Your task to perform on an android device: choose inbox layout in the gmail app Image 0: 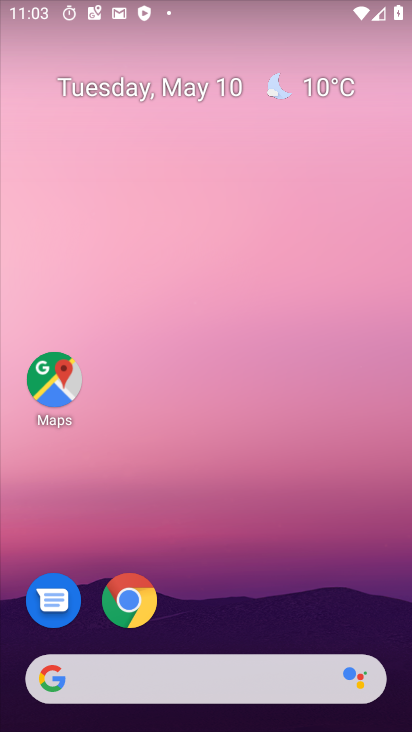
Step 0: drag from (230, 534) to (202, 14)
Your task to perform on an android device: choose inbox layout in the gmail app Image 1: 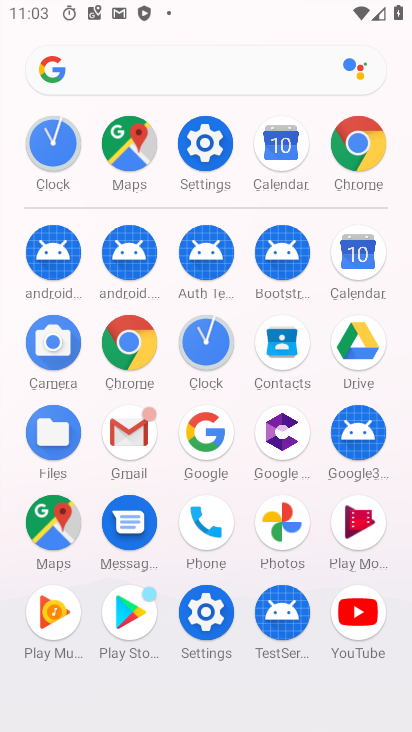
Step 1: drag from (5, 555) to (15, 189)
Your task to perform on an android device: choose inbox layout in the gmail app Image 2: 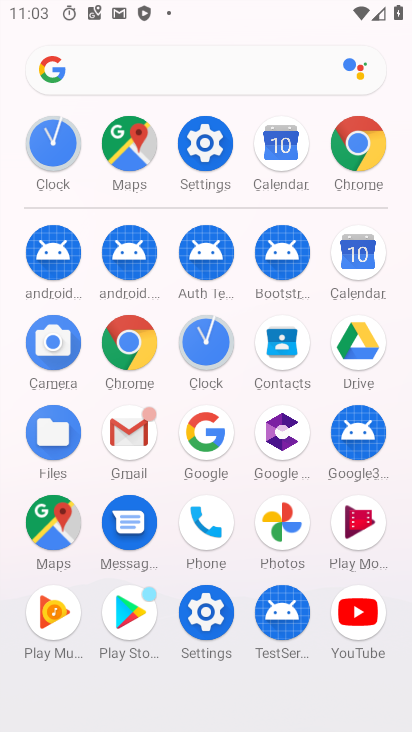
Step 2: click (129, 427)
Your task to perform on an android device: choose inbox layout in the gmail app Image 3: 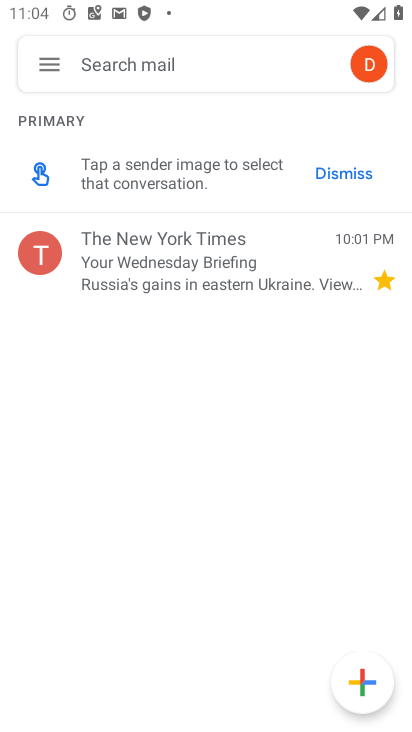
Step 3: click (50, 63)
Your task to perform on an android device: choose inbox layout in the gmail app Image 4: 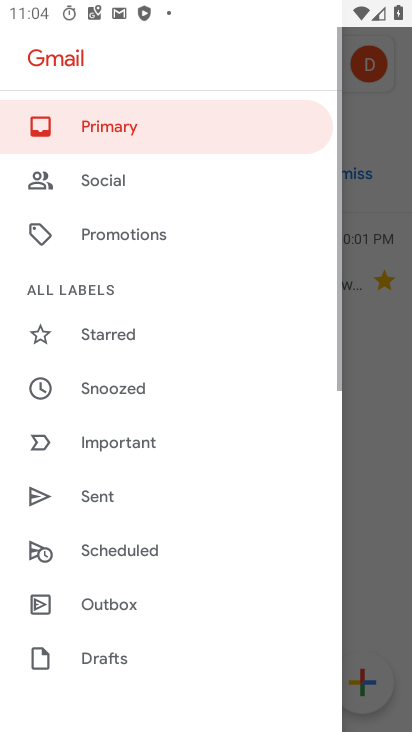
Step 4: drag from (233, 610) to (255, 127)
Your task to perform on an android device: choose inbox layout in the gmail app Image 5: 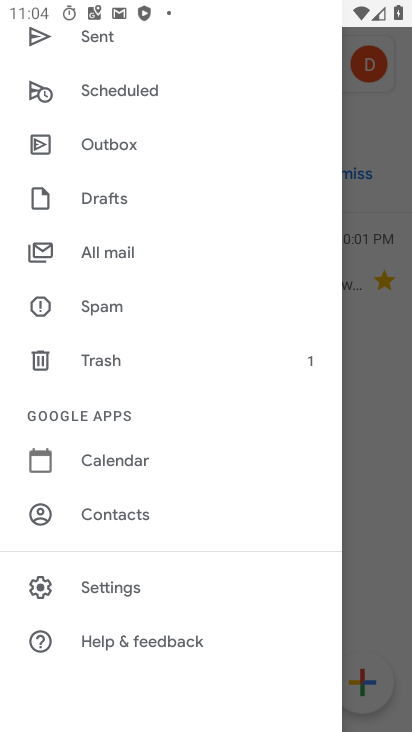
Step 5: click (135, 590)
Your task to perform on an android device: choose inbox layout in the gmail app Image 6: 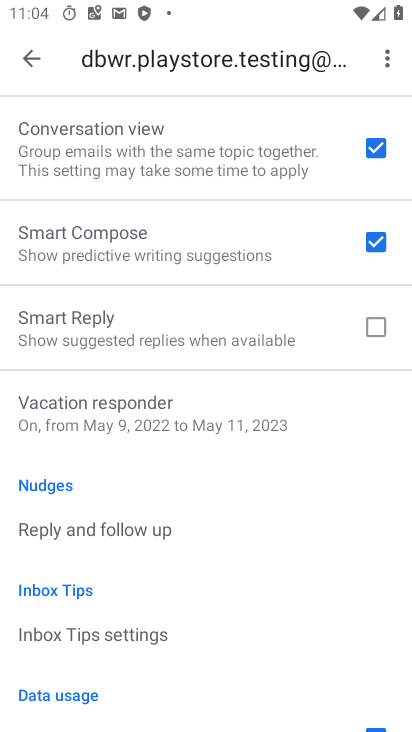
Step 6: drag from (199, 141) to (209, 620)
Your task to perform on an android device: choose inbox layout in the gmail app Image 7: 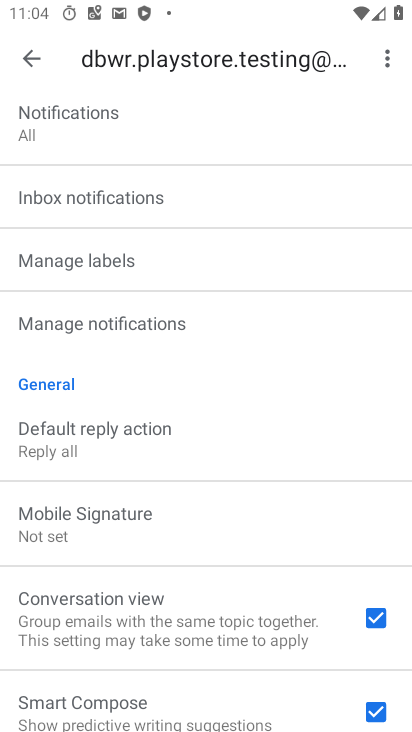
Step 7: drag from (214, 189) to (240, 677)
Your task to perform on an android device: choose inbox layout in the gmail app Image 8: 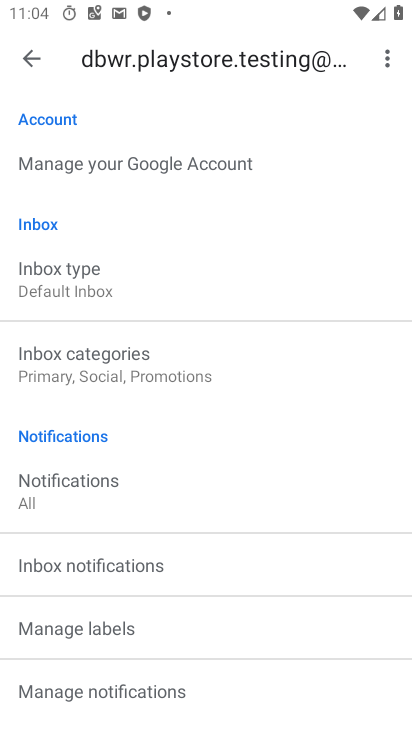
Step 8: click (144, 277)
Your task to perform on an android device: choose inbox layout in the gmail app Image 9: 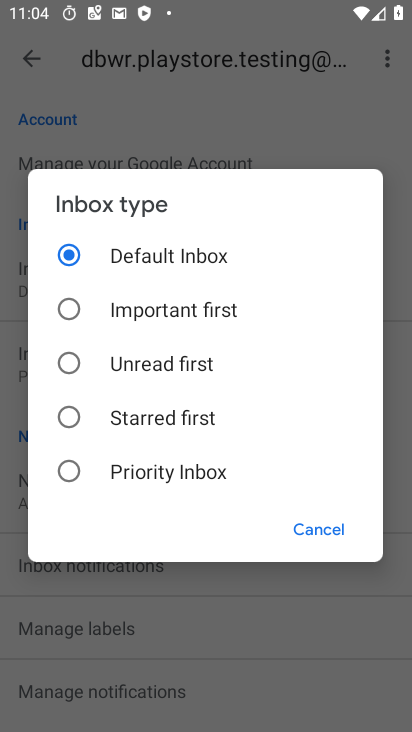
Step 9: click (179, 318)
Your task to perform on an android device: choose inbox layout in the gmail app Image 10: 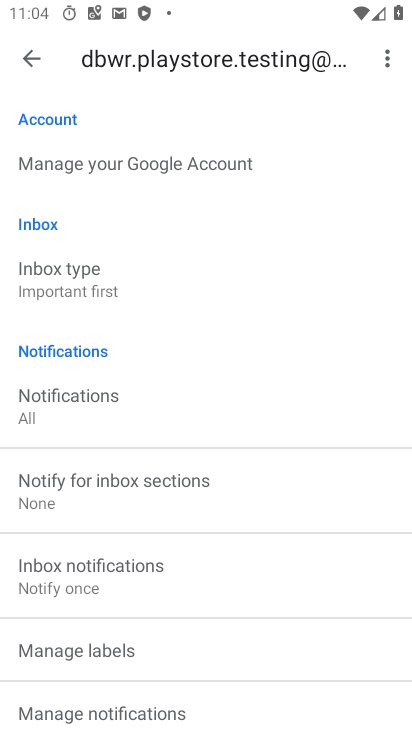
Step 10: task complete